Your task to perform on an android device: open a bookmark in the chrome app Image 0: 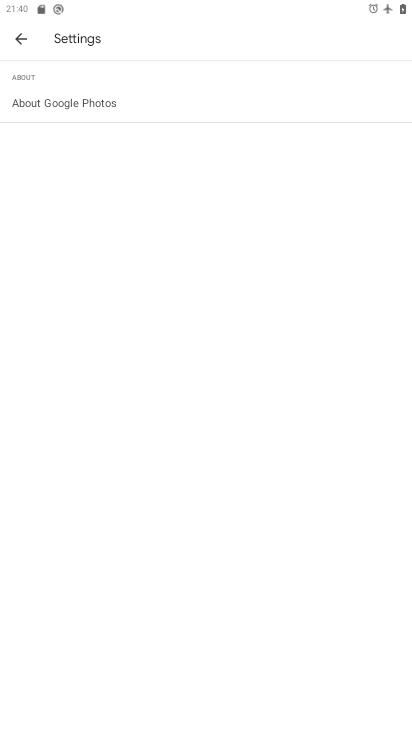
Step 0: press home button
Your task to perform on an android device: open a bookmark in the chrome app Image 1: 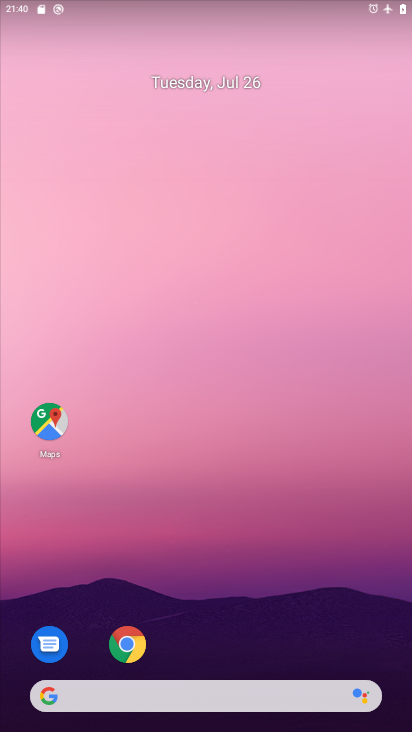
Step 1: click (125, 647)
Your task to perform on an android device: open a bookmark in the chrome app Image 2: 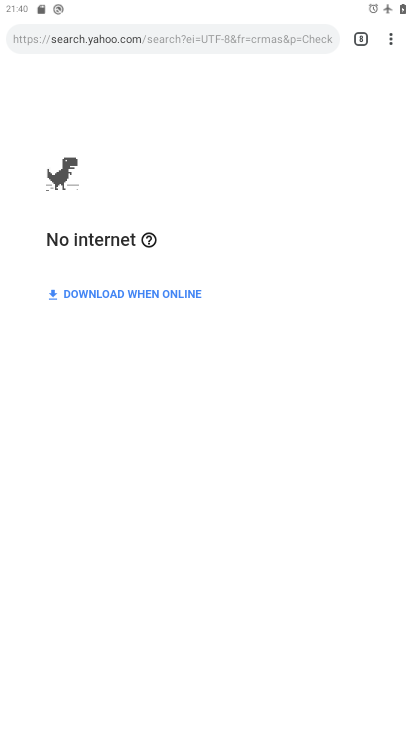
Step 2: click (394, 30)
Your task to perform on an android device: open a bookmark in the chrome app Image 3: 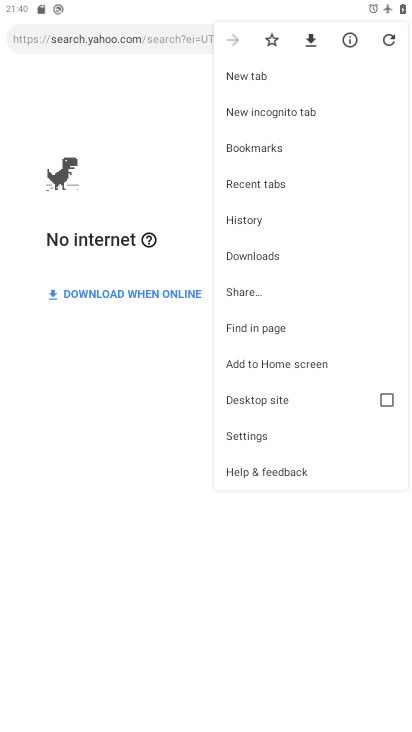
Step 3: click (256, 145)
Your task to perform on an android device: open a bookmark in the chrome app Image 4: 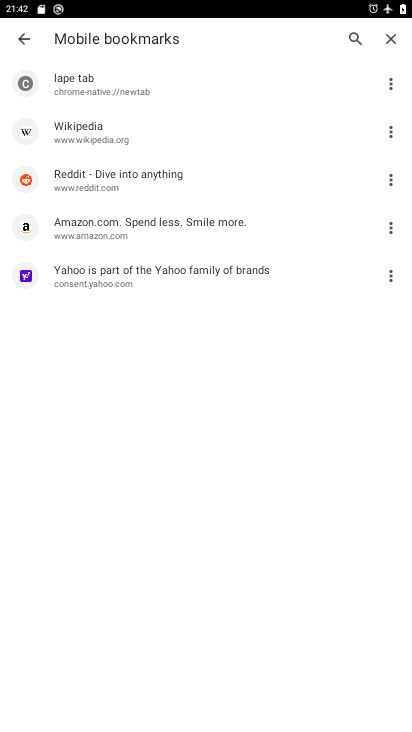
Step 4: task complete